Your task to perform on an android device: turn off sleep mode Image 0: 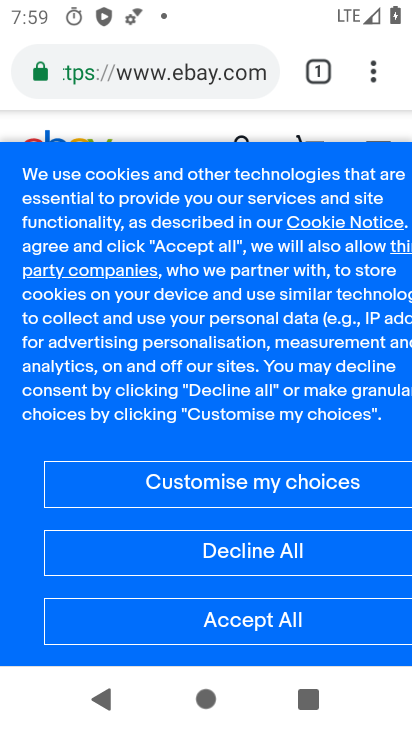
Step 0: press home button
Your task to perform on an android device: turn off sleep mode Image 1: 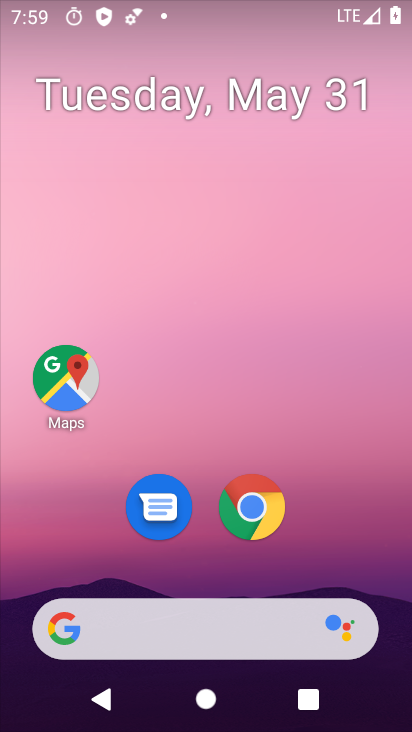
Step 1: drag from (375, 574) to (325, 7)
Your task to perform on an android device: turn off sleep mode Image 2: 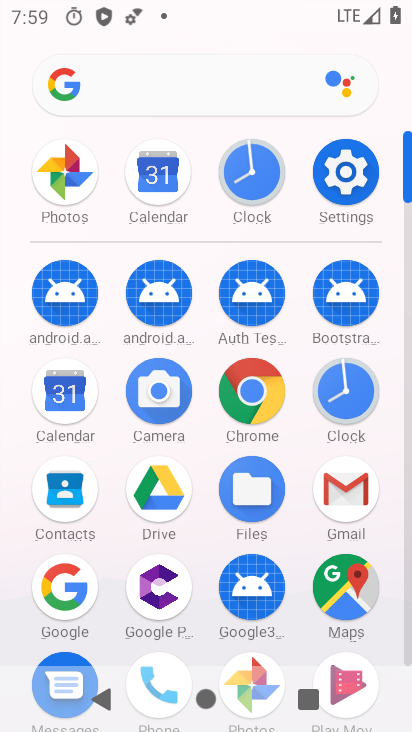
Step 2: click (343, 180)
Your task to perform on an android device: turn off sleep mode Image 3: 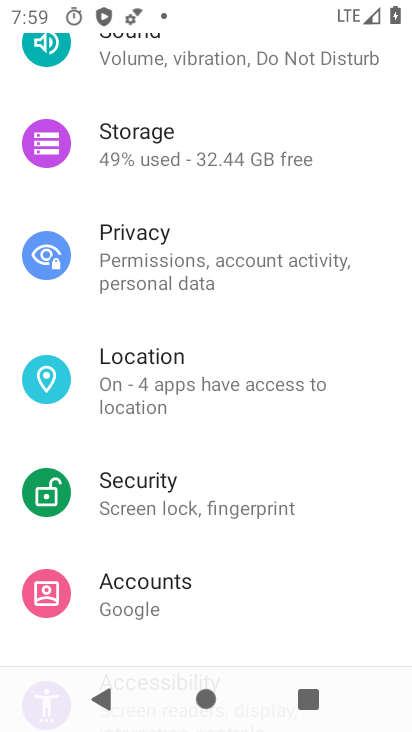
Step 3: drag from (347, 177) to (380, 431)
Your task to perform on an android device: turn off sleep mode Image 4: 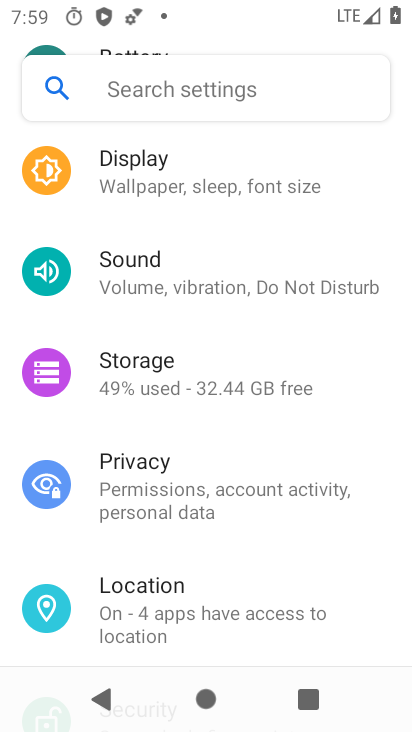
Step 4: click (152, 186)
Your task to perform on an android device: turn off sleep mode Image 5: 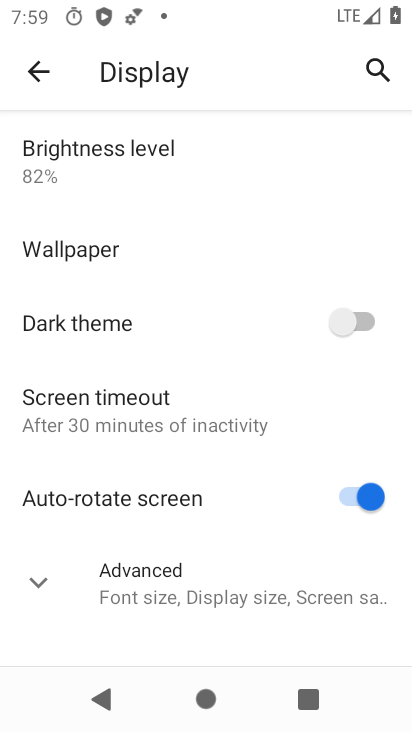
Step 5: click (37, 584)
Your task to perform on an android device: turn off sleep mode Image 6: 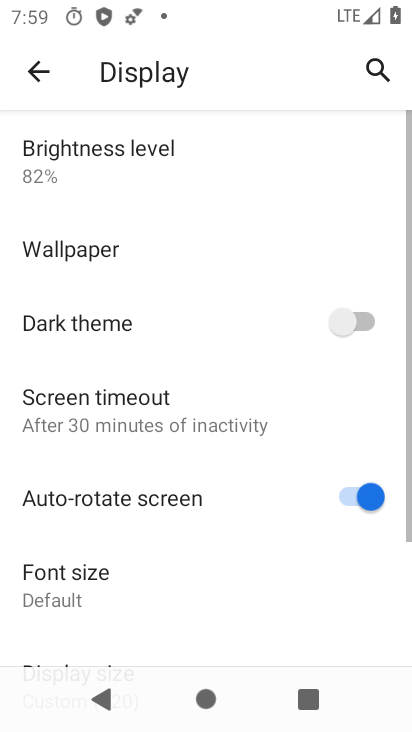
Step 6: task complete